Your task to perform on an android device: add a contact in the contacts app Image 0: 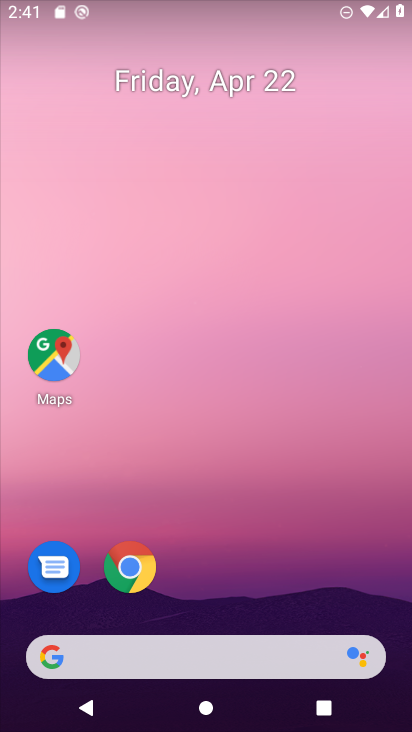
Step 0: drag from (272, 608) to (246, 155)
Your task to perform on an android device: add a contact in the contacts app Image 1: 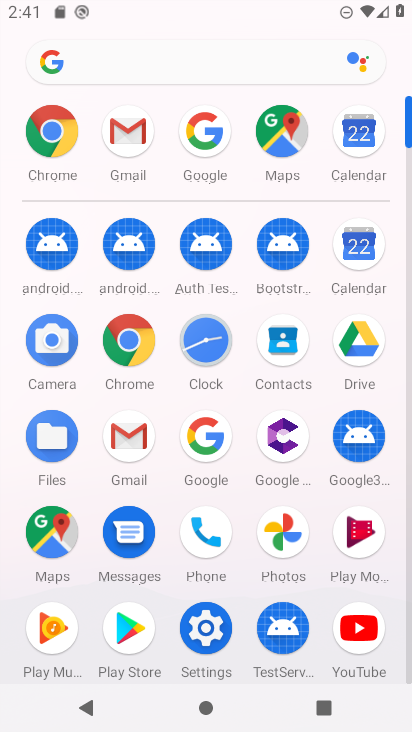
Step 1: drag from (317, 574) to (310, 200)
Your task to perform on an android device: add a contact in the contacts app Image 2: 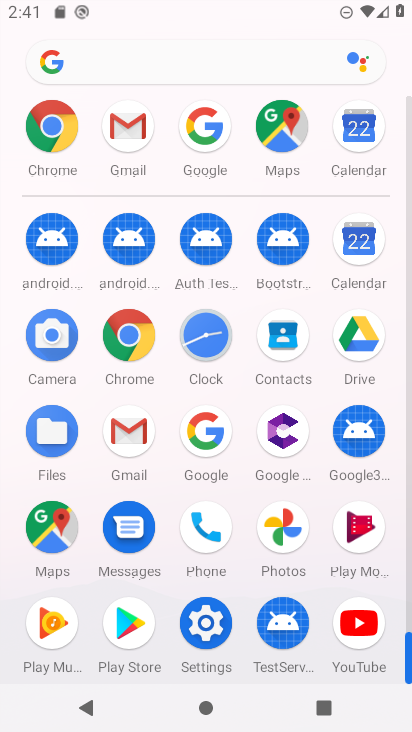
Step 2: click (280, 337)
Your task to perform on an android device: add a contact in the contacts app Image 3: 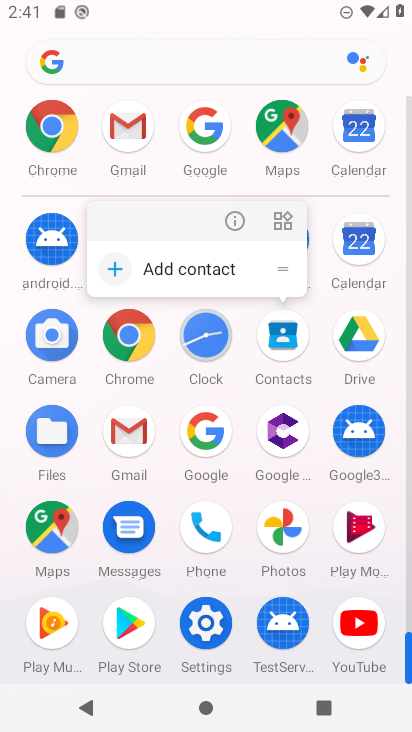
Step 3: click (291, 351)
Your task to perform on an android device: add a contact in the contacts app Image 4: 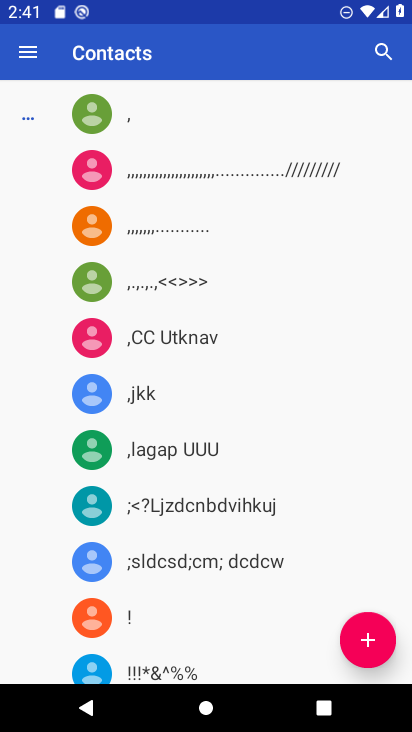
Step 4: click (377, 639)
Your task to perform on an android device: add a contact in the contacts app Image 5: 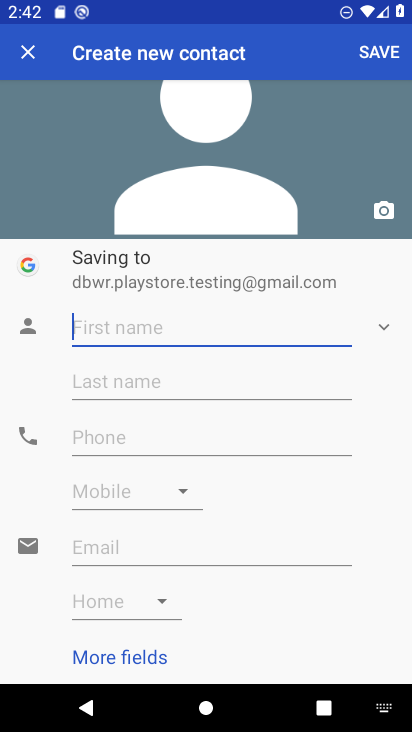
Step 5: type "movies"
Your task to perform on an android device: add a contact in the contacts app Image 6: 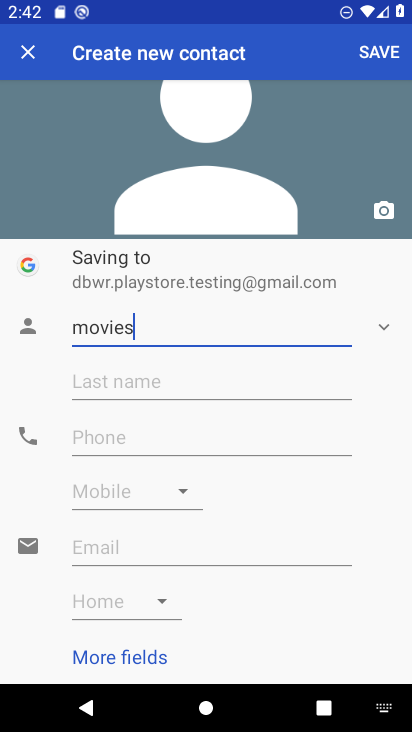
Step 6: click (121, 447)
Your task to perform on an android device: add a contact in the contacts app Image 7: 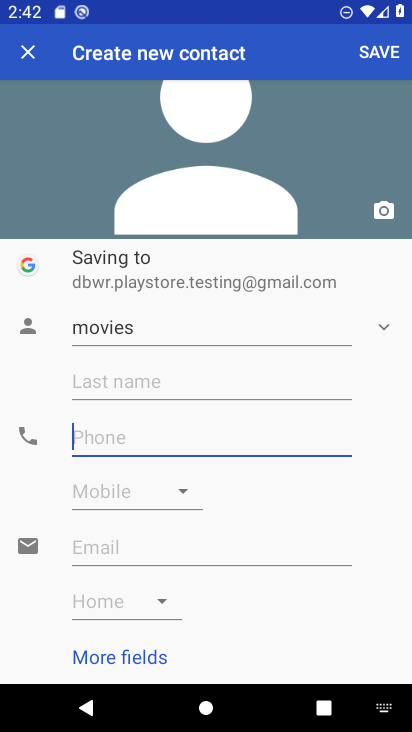
Step 7: type "3344566755"
Your task to perform on an android device: add a contact in the contacts app Image 8: 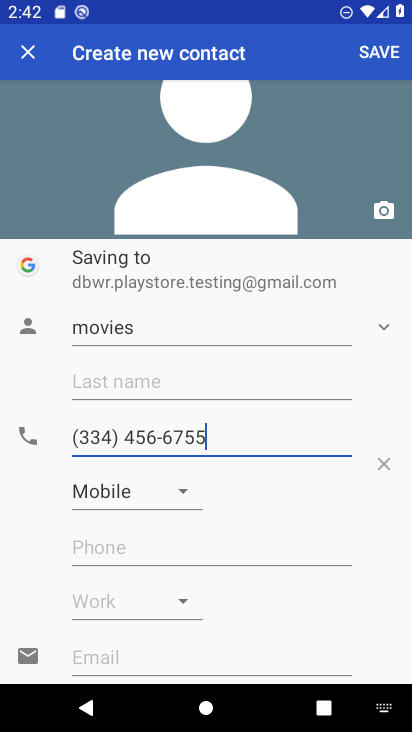
Step 8: click (385, 46)
Your task to perform on an android device: add a contact in the contacts app Image 9: 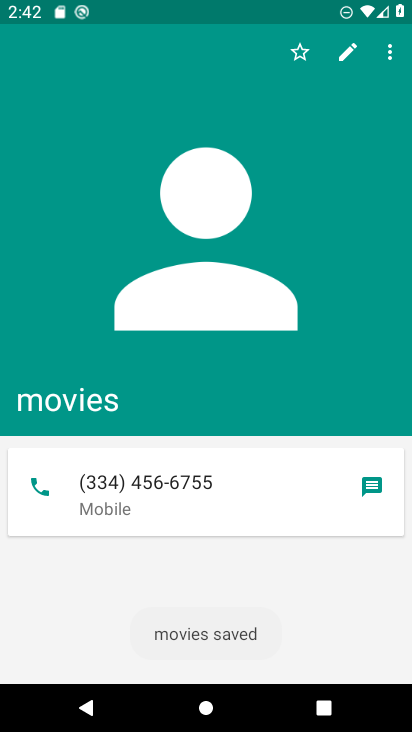
Step 9: task complete